Your task to perform on an android device: move an email to a new category in the gmail app Image 0: 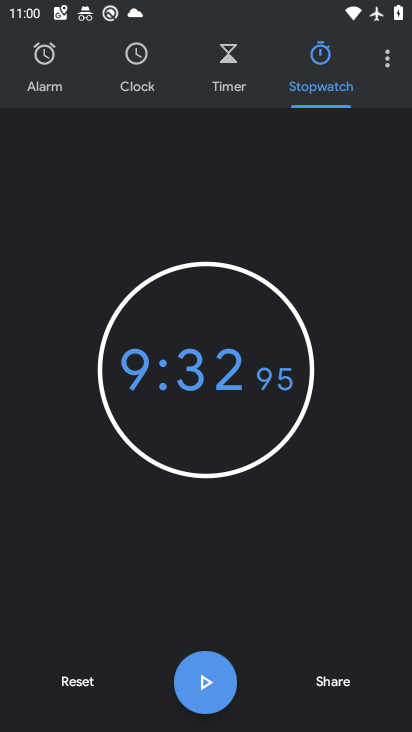
Step 0: press back button
Your task to perform on an android device: move an email to a new category in the gmail app Image 1: 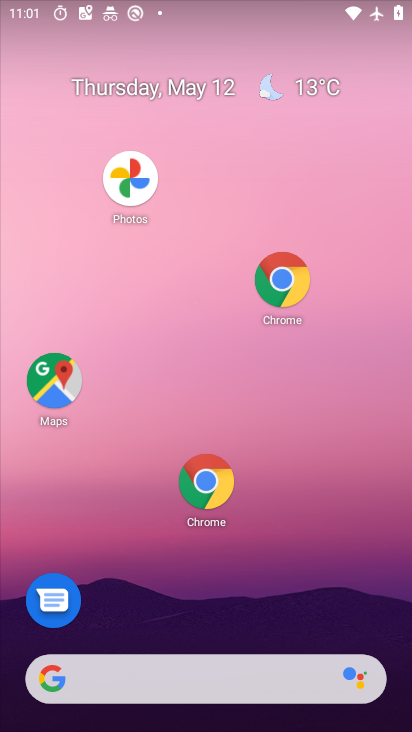
Step 1: drag from (282, 617) to (310, 439)
Your task to perform on an android device: move an email to a new category in the gmail app Image 2: 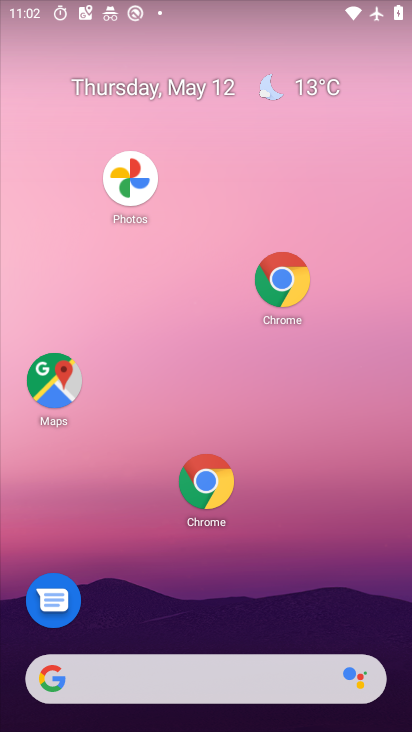
Step 2: drag from (315, 521) to (162, 189)
Your task to perform on an android device: move an email to a new category in the gmail app Image 3: 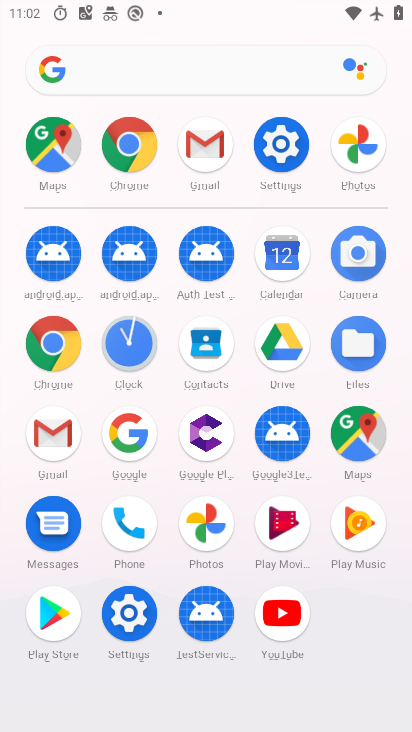
Step 3: click (47, 431)
Your task to perform on an android device: move an email to a new category in the gmail app Image 4: 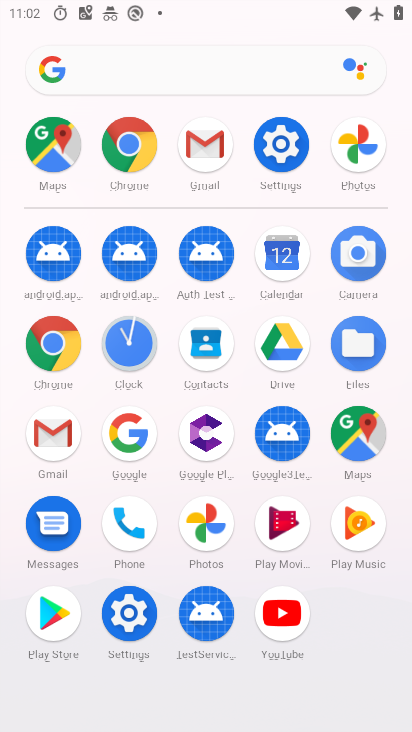
Step 4: click (52, 431)
Your task to perform on an android device: move an email to a new category in the gmail app Image 5: 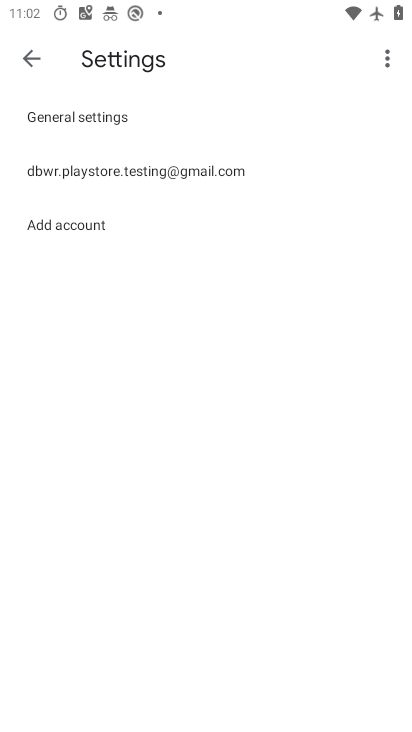
Step 5: click (34, 58)
Your task to perform on an android device: move an email to a new category in the gmail app Image 6: 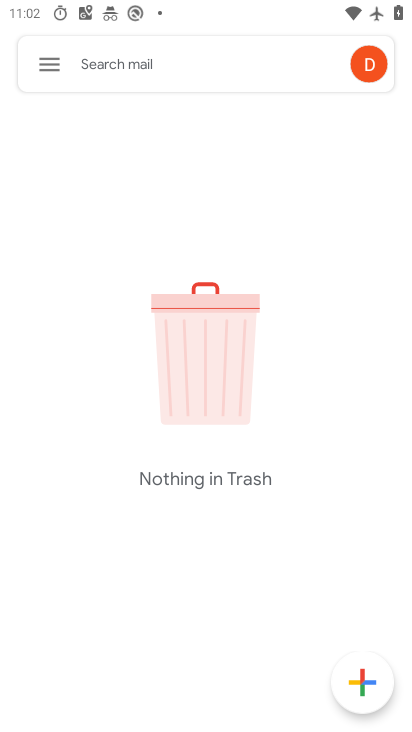
Step 6: click (50, 64)
Your task to perform on an android device: move an email to a new category in the gmail app Image 7: 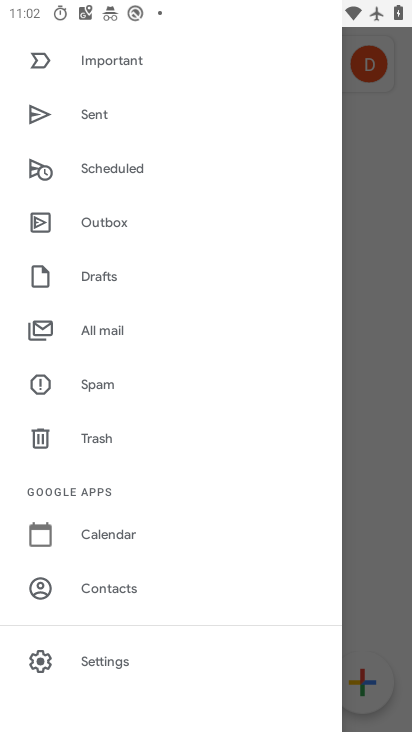
Step 7: click (94, 657)
Your task to perform on an android device: move an email to a new category in the gmail app Image 8: 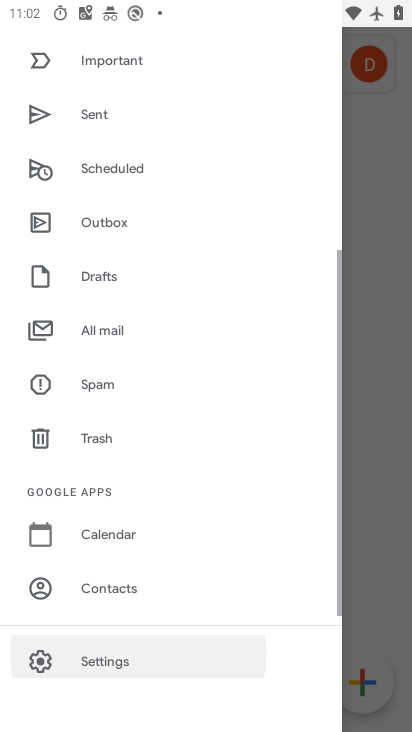
Step 8: click (94, 657)
Your task to perform on an android device: move an email to a new category in the gmail app Image 9: 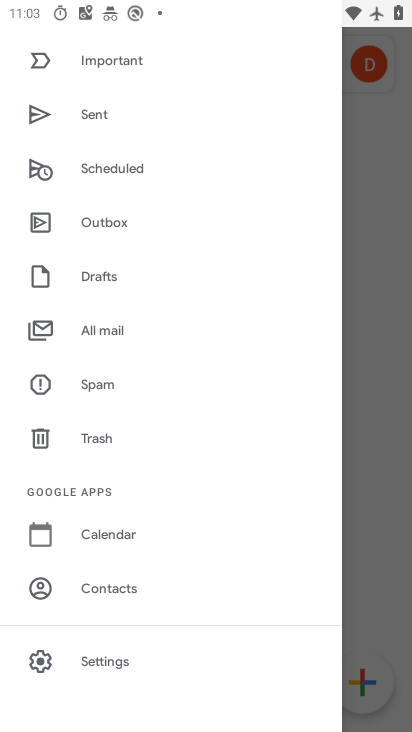
Step 9: click (101, 650)
Your task to perform on an android device: move an email to a new category in the gmail app Image 10: 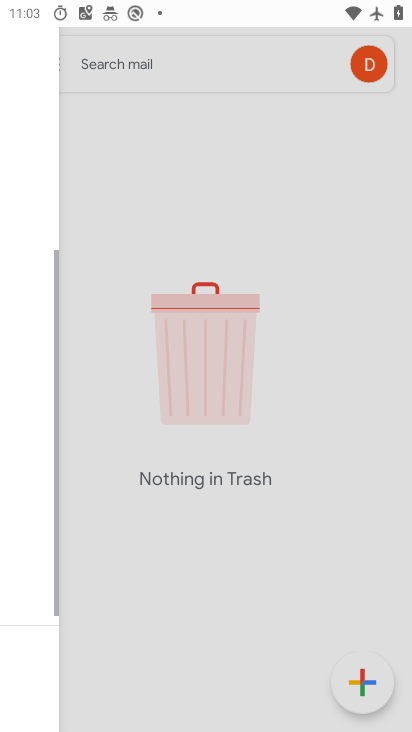
Step 10: click (101, 651)
Your task to perform on an android device: move an email to a new category in the gmail app Image 11: 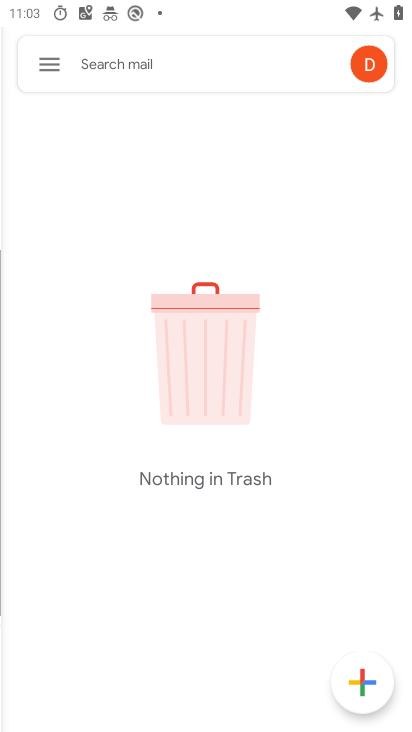
Step 11: click (101, 651)
Your task to perform on an android device: move an email to a new category in the gmail app Image 12: 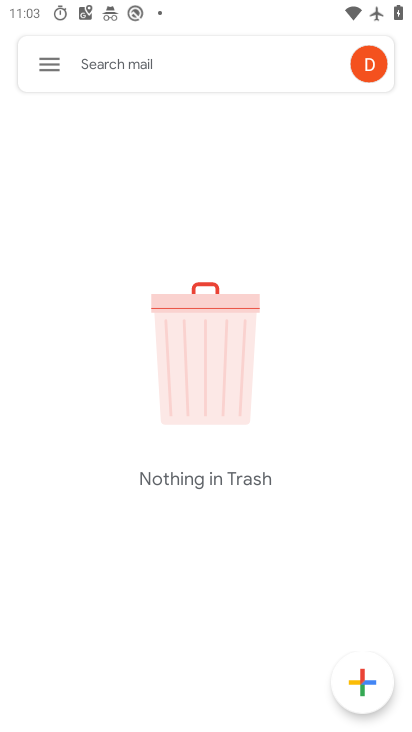
Step 12: click (101, 651)
Your task to perform on an android device: move an email to a new category in the gmail app Image 13: 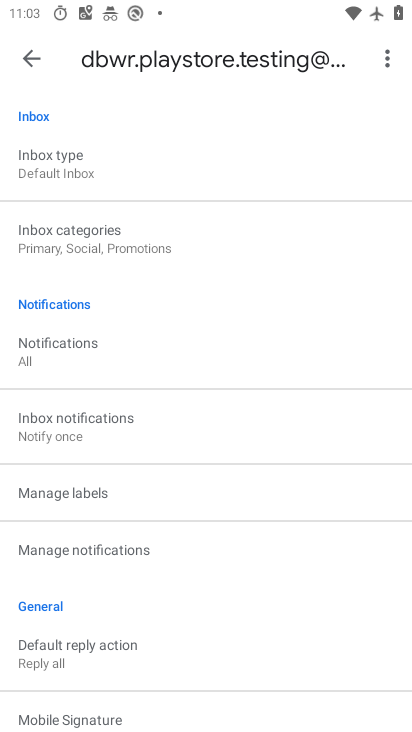
Step 13: click (28, 51)
Your task to perform on an android device: move an email to a new category in the gmail app Image 14: 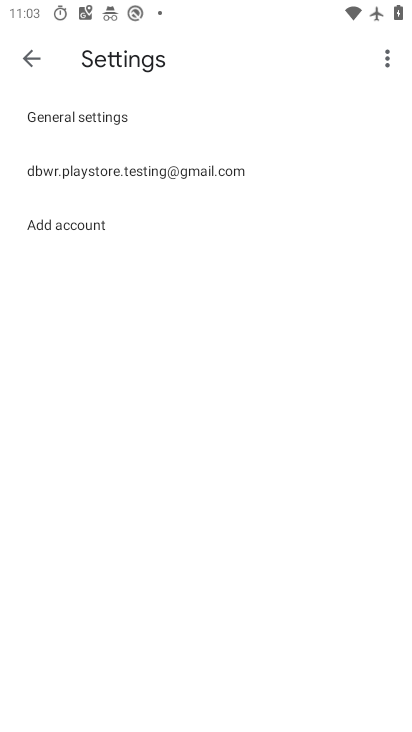
Step 14: click (33, 59)
Your task to perform on an android device: move an email to a new category in the gmail app Image 15: 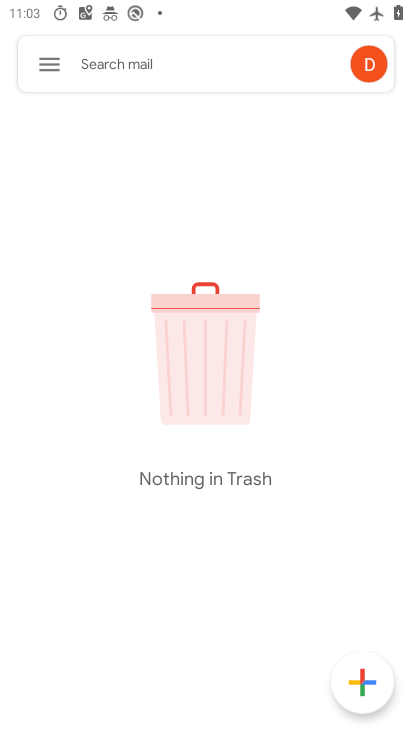
Step 15: click (44, 66)
Your task to perform on an android device: move an email to a new category in the gmail app Image 16: 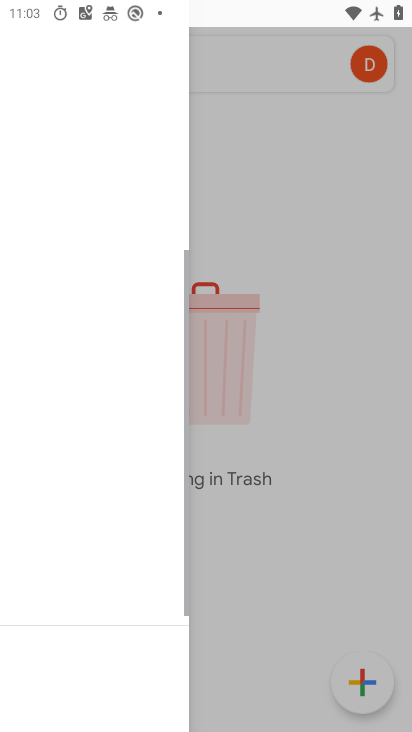
Step 16: click (44, 65)
Your task to perform on an android device: move an email to a new category in the gmail app Image 17: 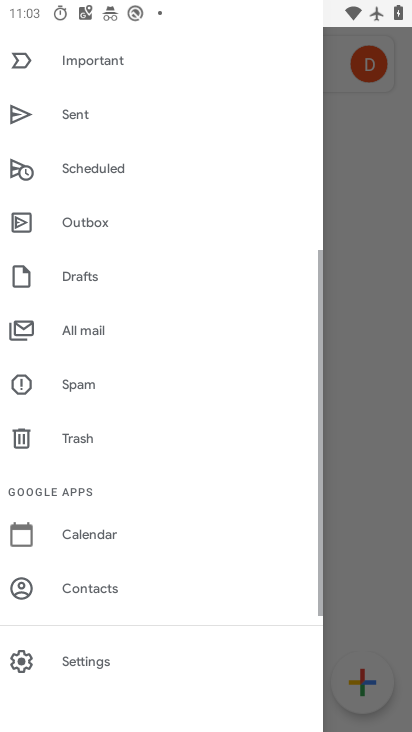
Step 17: click (44, 65)
Your task to perform on an android device: move an email to a new category in the gmail app Image 18: 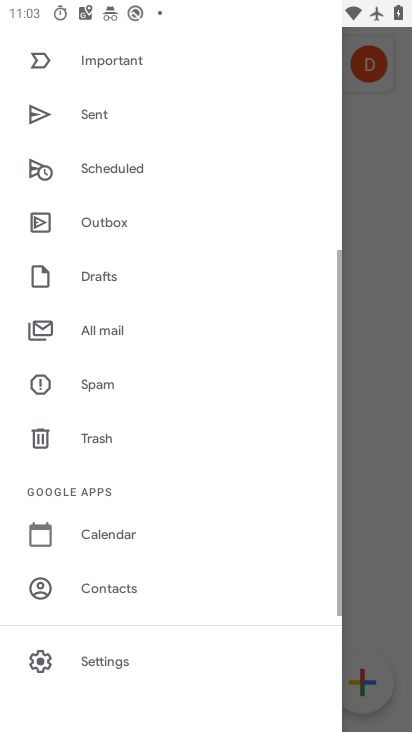
Step 18: click (44, 65)
Your task to perform on an android device: move an email to a new category in the gmail app Image 19: 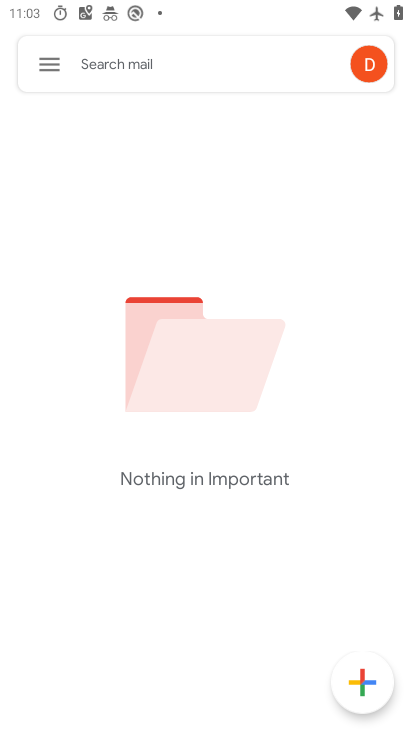
Step 19: click (52, 60)
Your task to perform on an android device: move an email to a new category in the gmail app Image 20: 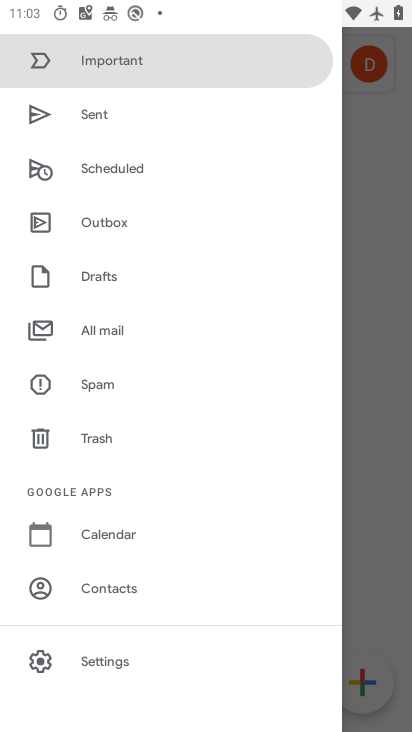
Step 20: click (109, 314)
Your task to perform on an android device: move an email to a new category in the gmail app Image 21: 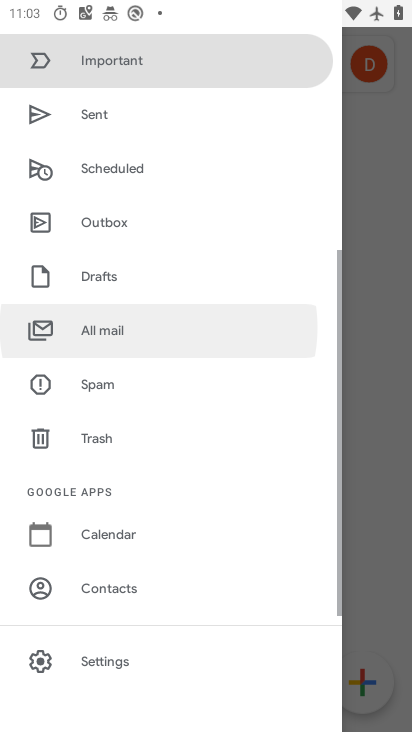
Step 21: click (109, 320)
Your task to perform on an android device: move an email to a new category in the gmail app Image 22: 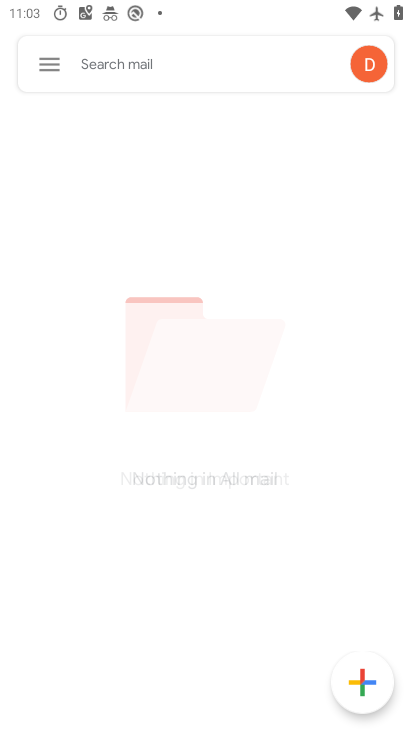
Step 22: click (109, 320)
Your task to perform on an android device: move an email to a new category in the gmail app Image 23: 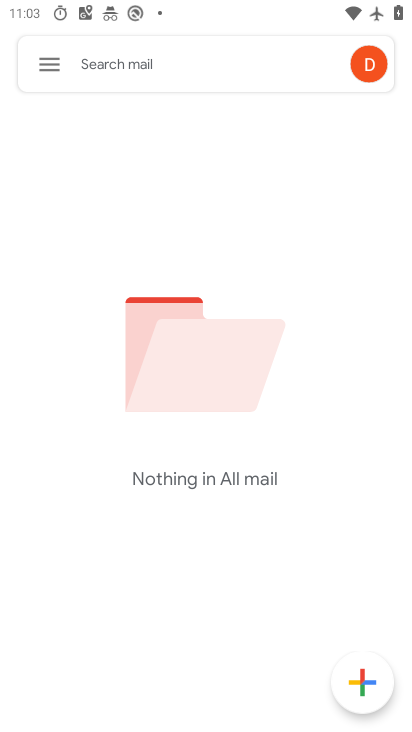
Step 23: task complete